Your task to perform on an android device: Go to Amazon Image 0: 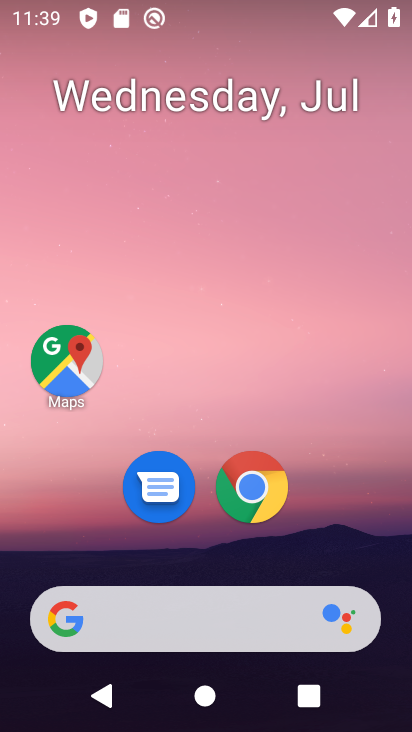
Step 0: drag from (226, 660) to (230, 203)
Your task to perform on an android device: Go to Amazon Image 1: 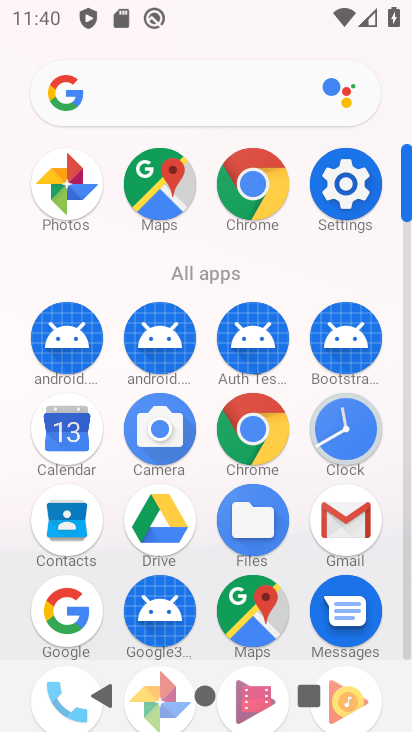
Step 1: click (249, 439)
Your task to perform on an android device: Go to Amazon Image 2: 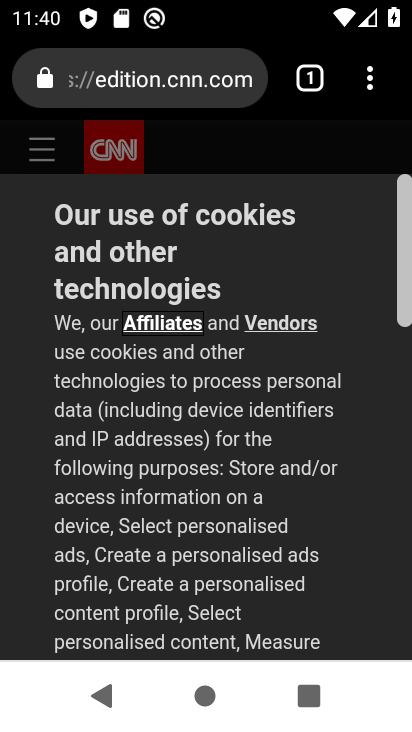
Step 2: click (212, 92)
Your task to perform on an android device: Go to Amazon Image 3: 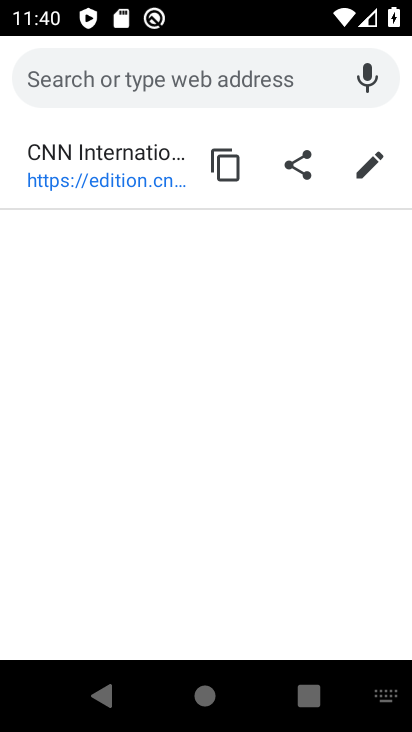
Step 3: type "amazon"
Your task to perform on an android device: Go to Amazon Image 4: 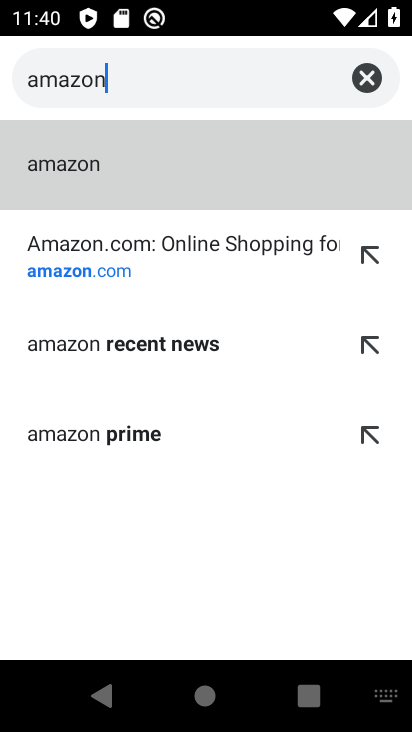
Step 4: type ""
Your task to perform on an android device: Go to Amazon Image 5: 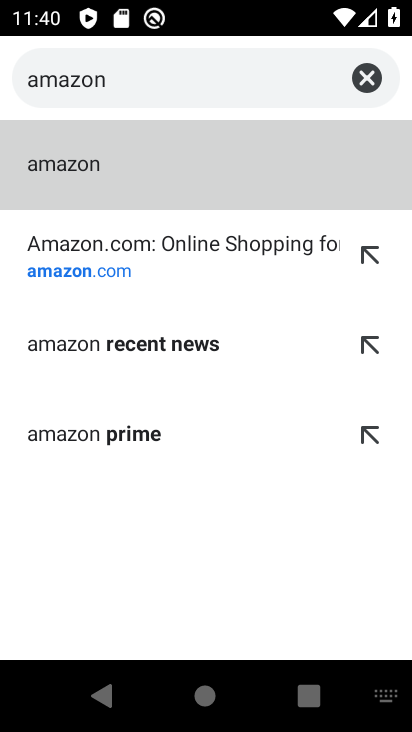
Step 5: click (252, 264)
Your task to perform on an android device: Go to Amazon Image 6: 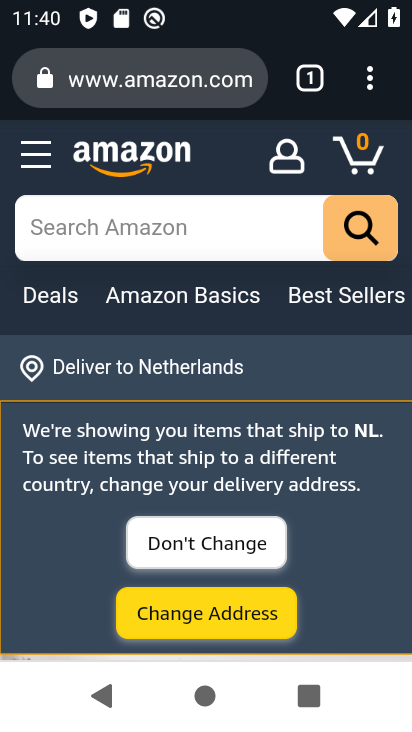
Step 6: task complete